Your task to perform on an android device: all mails in gmail Image 0: 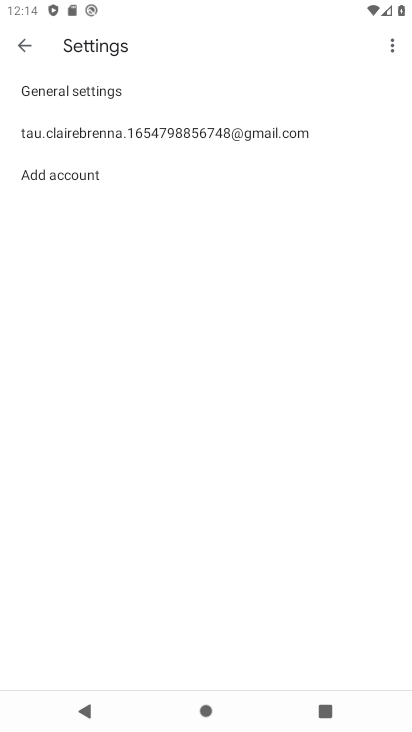
Step 0: press home button
Your task to perform on an android device: all mails in gmail Image 1: 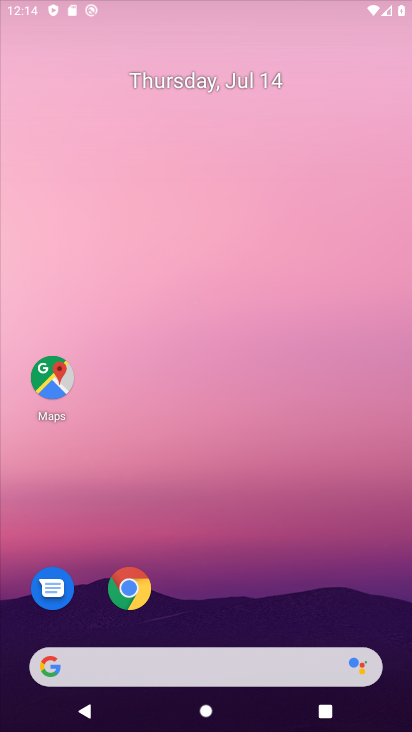
Step 1: drag from (200, 600) to (265, 97)
Your task to perform on an android device: all mails in gmail Image 2: 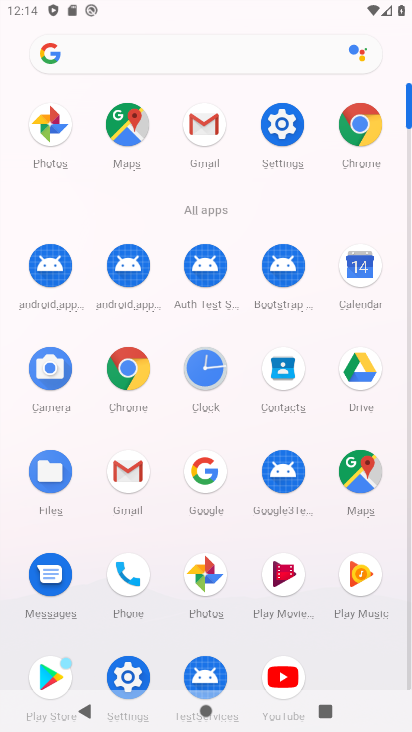
Step 2: click (200, 135)
Your task to perform on an android device: all mails in gmail Image 3: 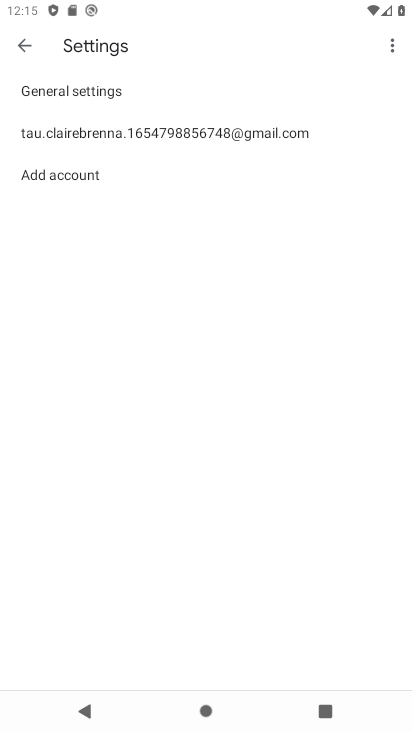
Step 3: press back button
Your task to perform on an android device: all mails in gmail Image 4: 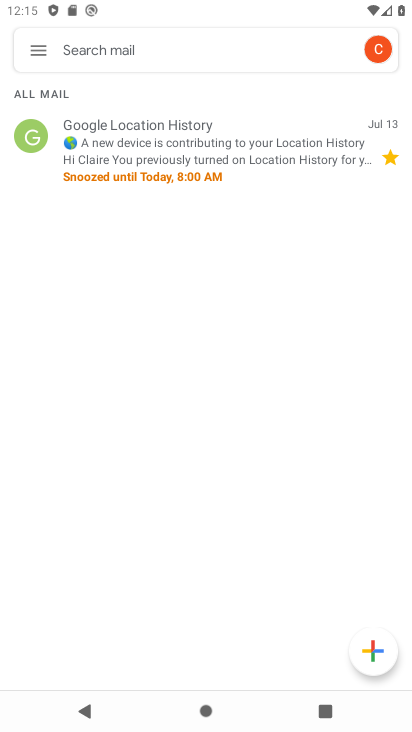
Step 4: click (40, 53)
Your task to perform on an android device: all mails in gmail Image 5: 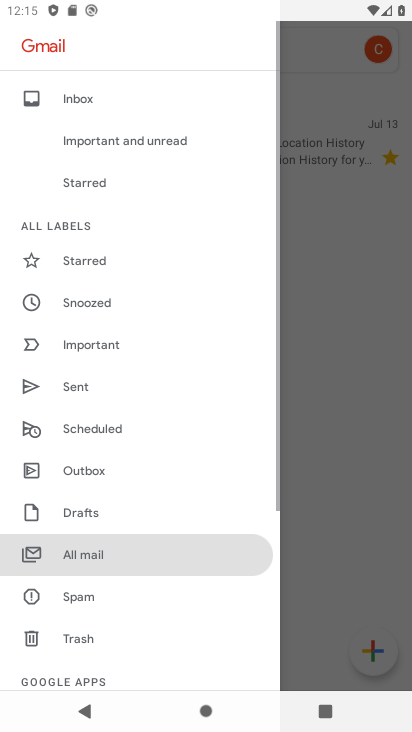
Step 5: click (91, 555)
Your task to perform on an android device: all mails in gmail Image 6: 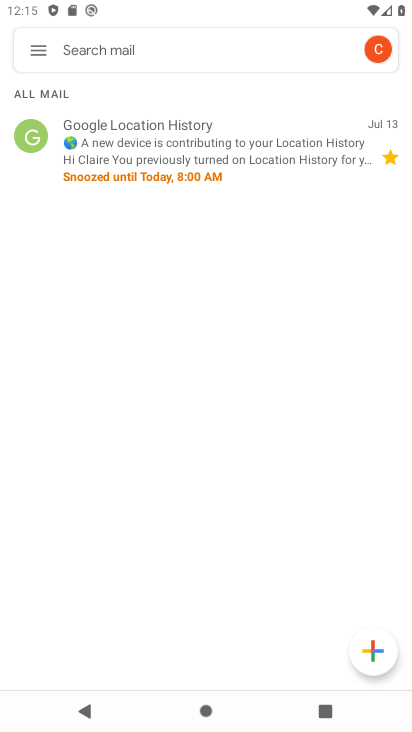
Step 6: task complete